Your task to perform on an android device: Open the phone app and click the voicemail tab. Image 0: 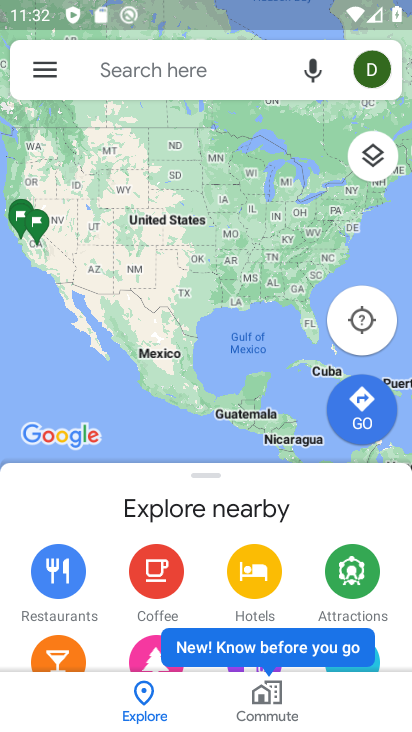
Step 0: press home button
Your task to perform on an android device: Open the phone app and click the voicemail tab. Image 1: 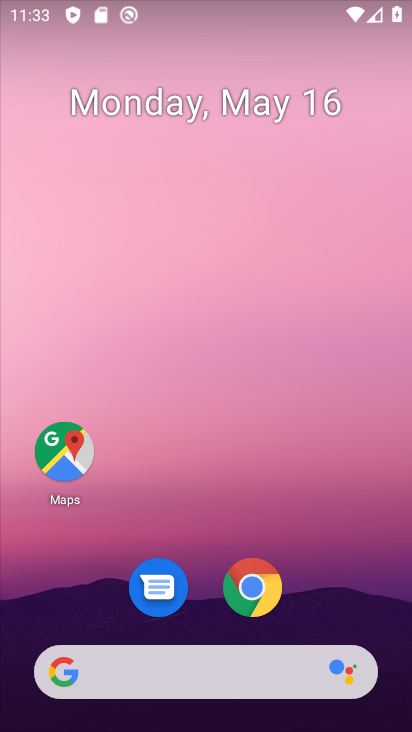
Step 1: drag from (339, 602) to (236, 69)
Your task to perform on an android device: Open the phone app and click the voicemail tab. Image 2: 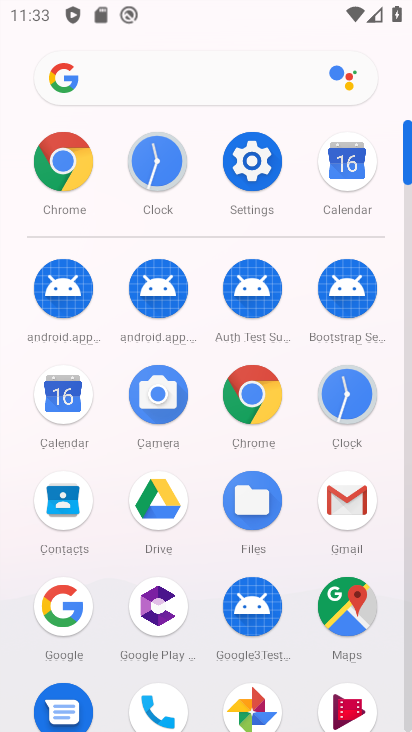
Step 2: click (164, 687)
Your task to perform on an android device: Open the phone app and click the voicemail tab. Image 3: 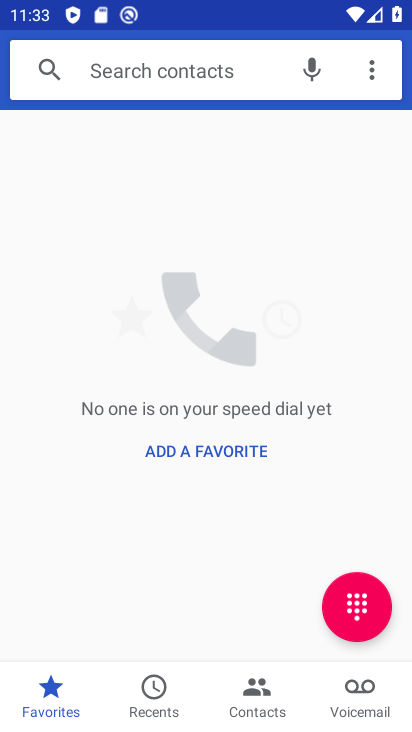
Step 3: click (365, 697)
Your task to perform on an android device: Open the phone app and click the voicemail tab. Image 4: 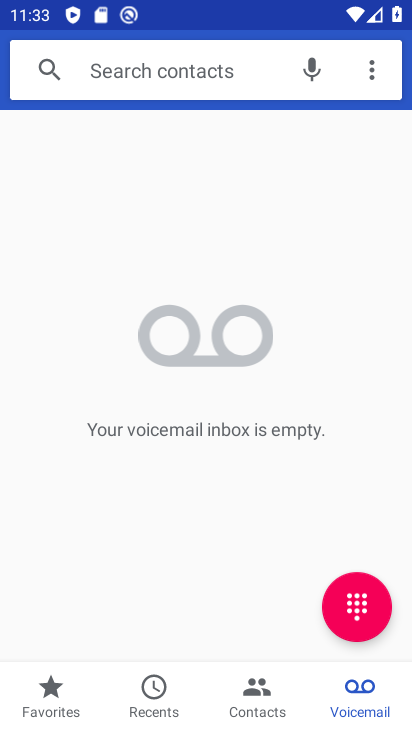
Step 4: task complete